Your task to perform on an android device: open a new tab in the chrome app Image 0: 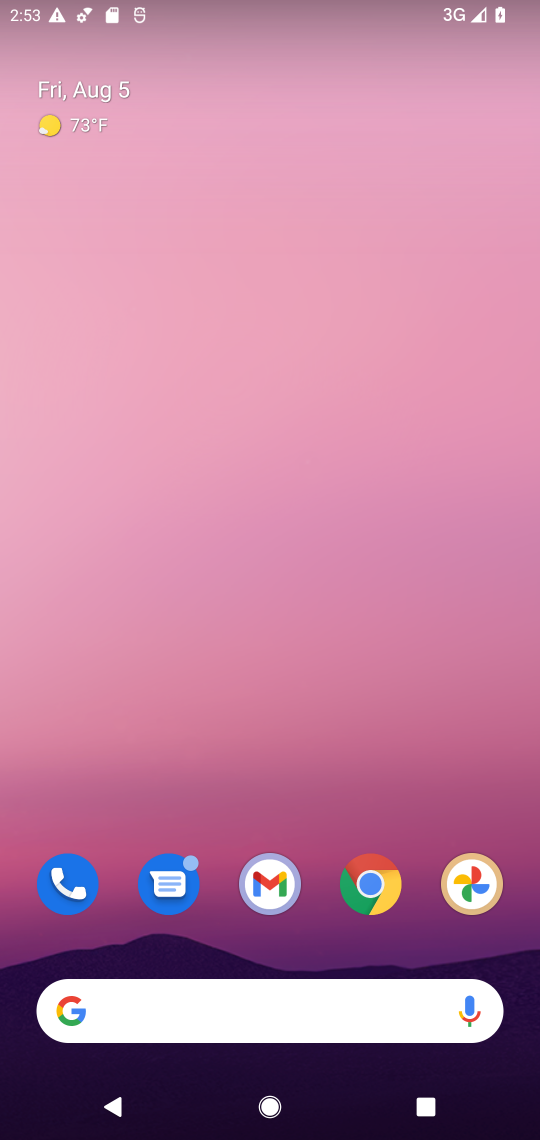
Step 0: drag from (431, 949) to (321, 193)
Your task to perform on an android device: open a new tab in the chrome app Image 1: 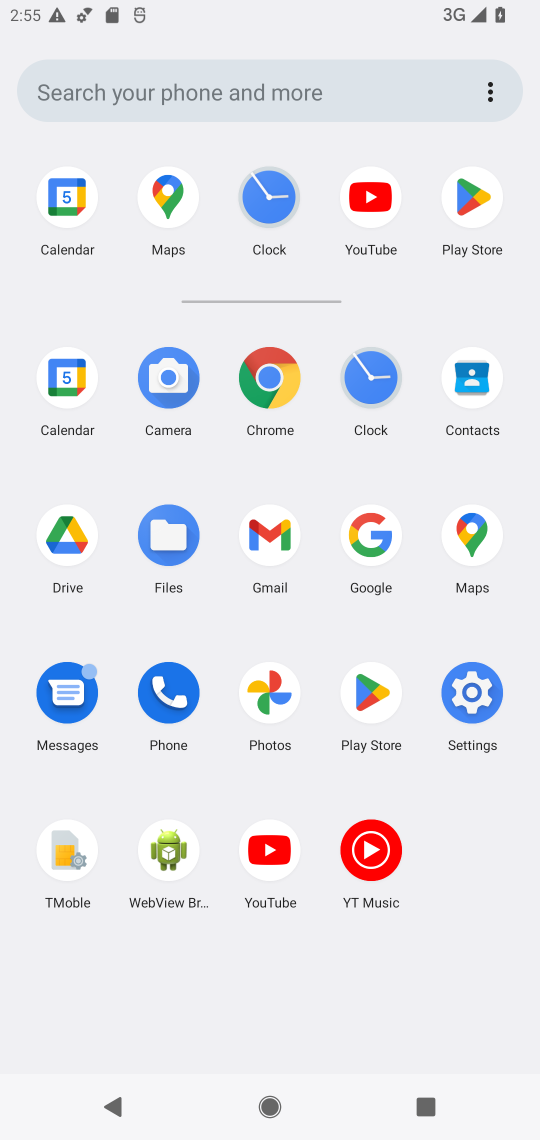
Step 1: click (271, 407)
Your task to perform on an android device: open a new tab in the chrome app Image 2: 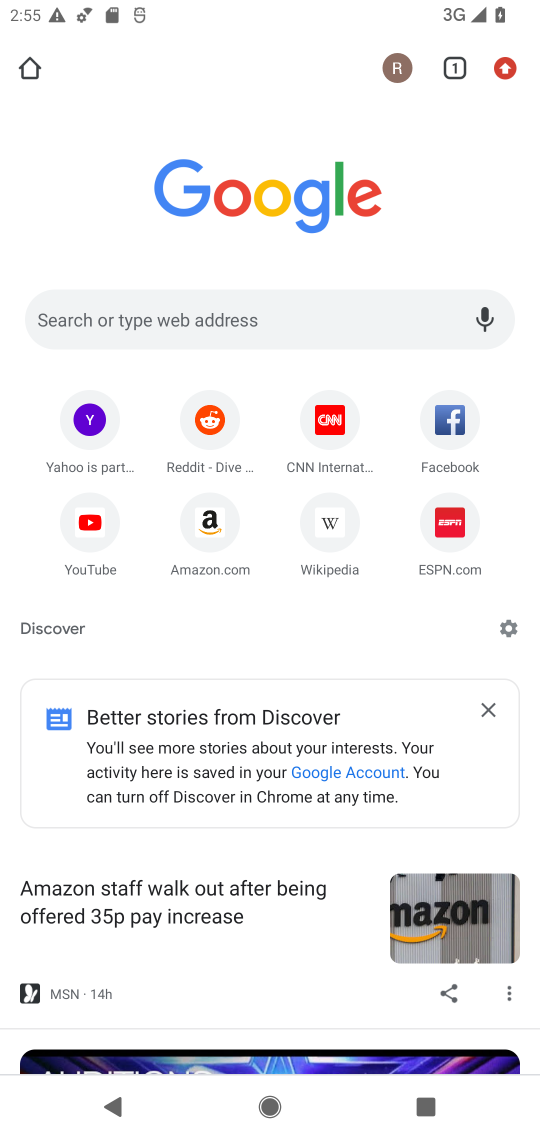
Step 2: click (498, 63)
Your task to perform on an android device: open a new tab in the chrome app Image 3: 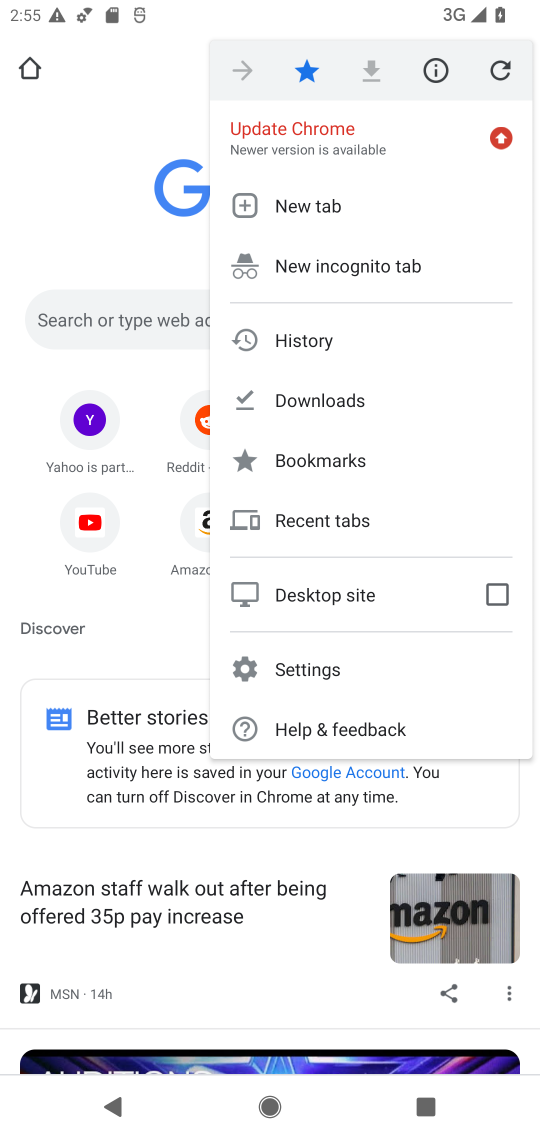
Step 3: click (322, 201)
Your task to perform on an android device: open a new tab in the chrome app Image 4: 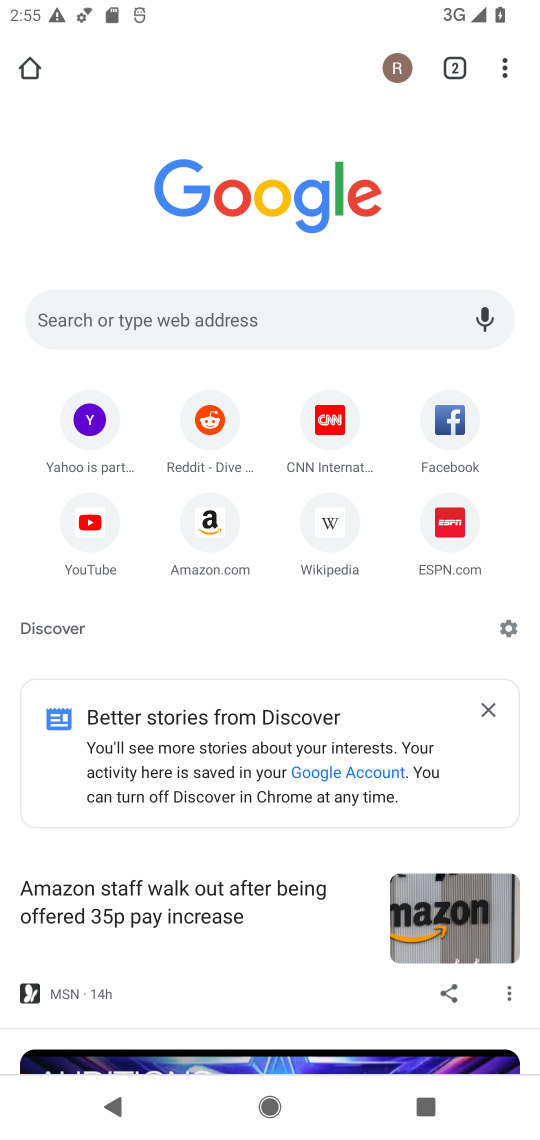
Step 4: task complete